Your task to perform on an android device: Open the calendar app, open the side menu, and click the "Day" option Image 0: 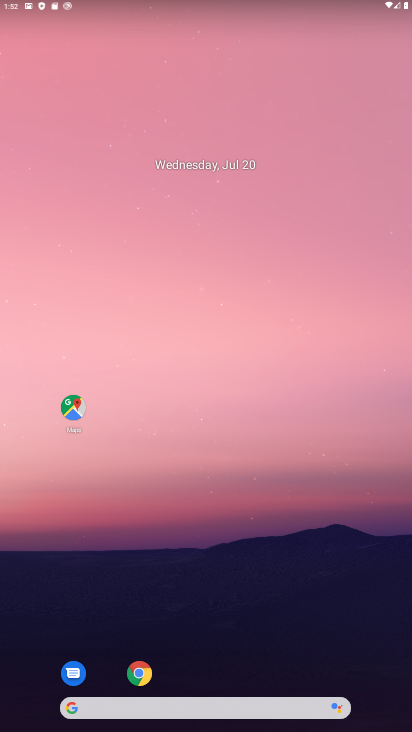
Step 0: drag from (207, 664) to (235, 103)
Your task to perform on an android device: Open the calendar app, open the side menu, and click the "Day" option Image 1: 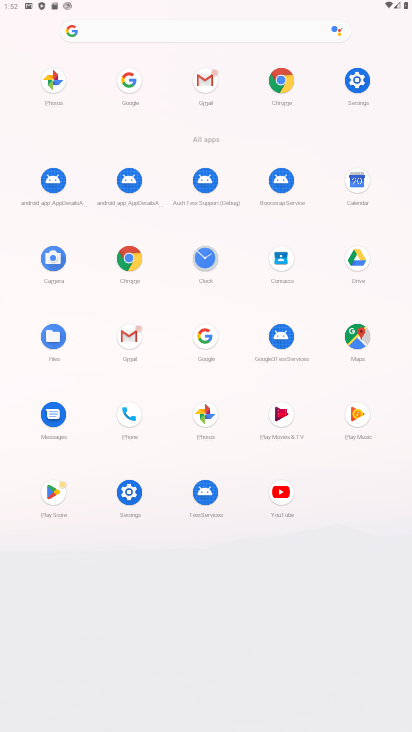
Step 1: click (356, 186)
Your task to perform on an android device: Open the calendar app, open the side menu, and click the "Day" option Image 2: 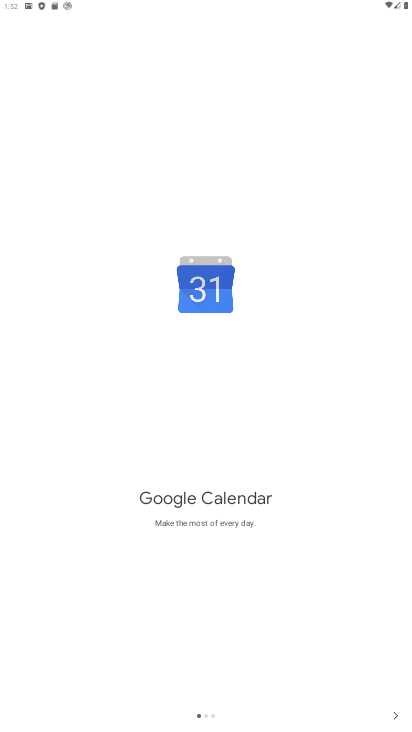
Step 2: click (393, 717)
Your task to perform on an android device: Open the calendar app, open the side menu, and click the "Day" option Image 3: 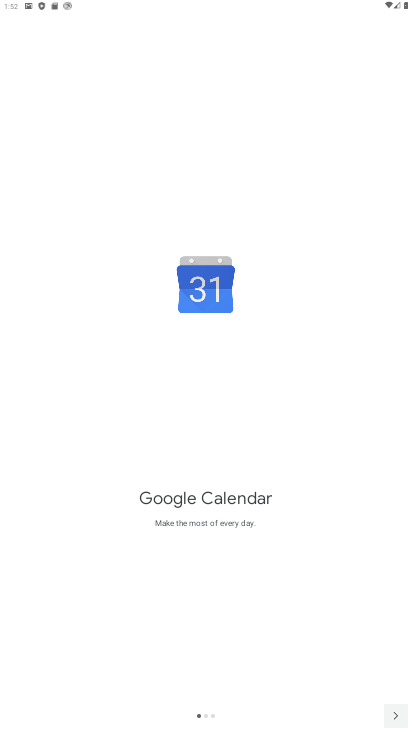
Step 3: click (393, 717)
Your task to perform on an android device: Open the calendar app, open the side menu, and click the "Day" option Image 4: 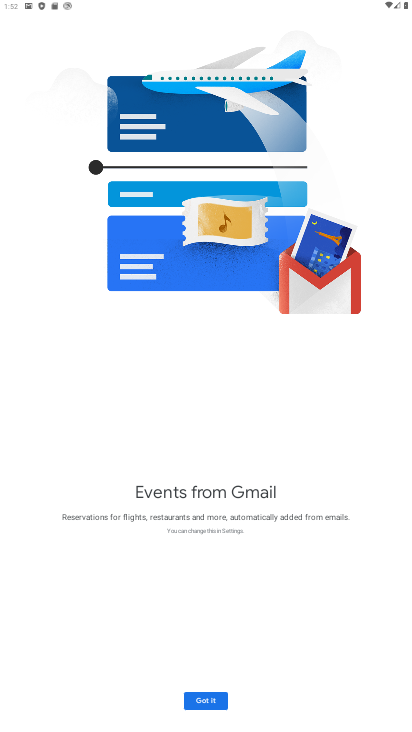
Step 4: click (215, 699)
Your task to perform on an android device: Open the calendar app, open the side menu, and click the "Day" option Image 5: 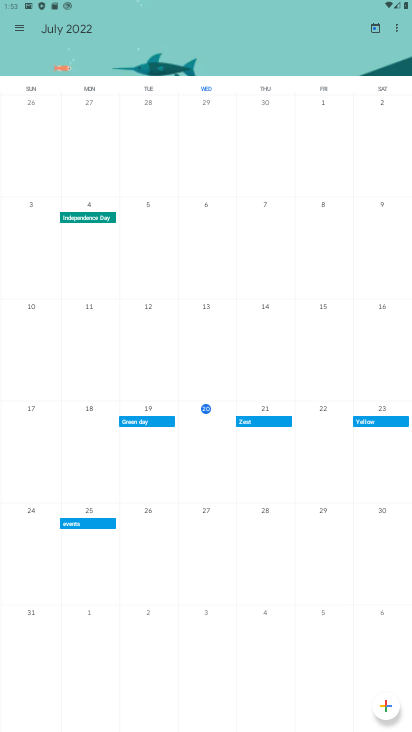
Step 5: click (21, 24)
Your task to perform on an android device: Open the calendar app, open the side menu, and click the "Day" option Image 6: 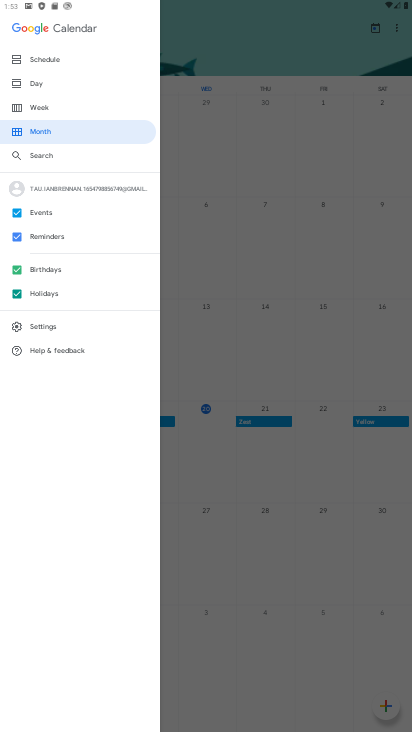
Step 6: click (40, 84)
Your task to perform on an android device: Open the calendar app, open the side menu, and click the "Day" option Image 7: 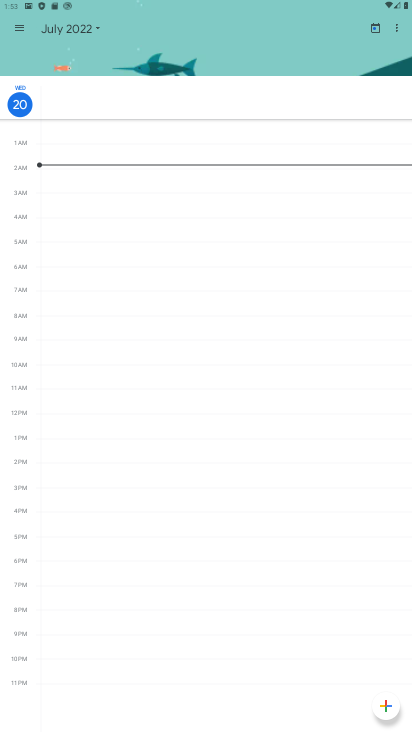
Step 7: task complete